Your task to perform on an android device: set an alarm Image 0: 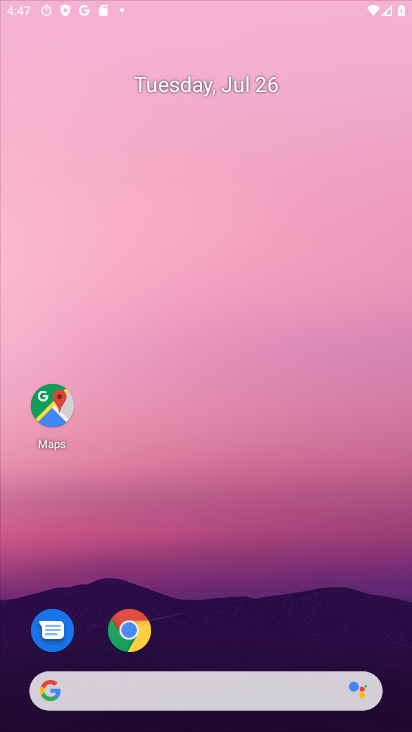
Step 0: drag from (345, 596) to (254, 64)
Your task to perform on an android device: set an alarm Image 1: 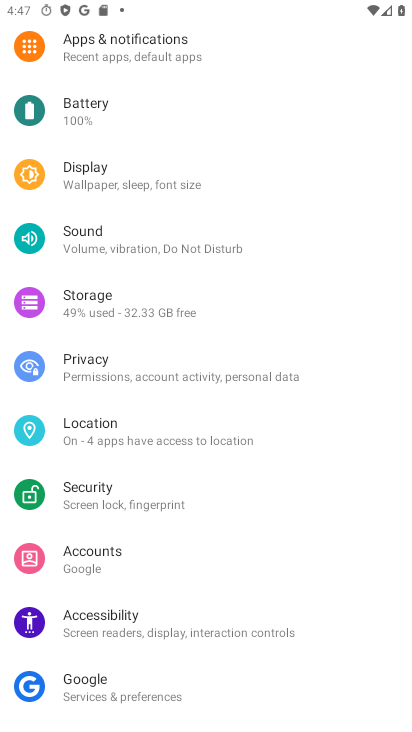
Step 1: press home button
Your task to perform on an android device: set an alarm Image 2: 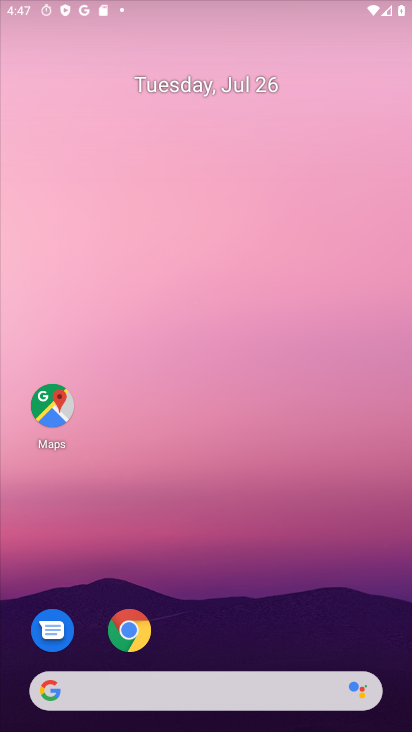
Step 2: drag from (213, 610) to (265, 115)
Your task to perform on an android device: set an alarm Image 3: 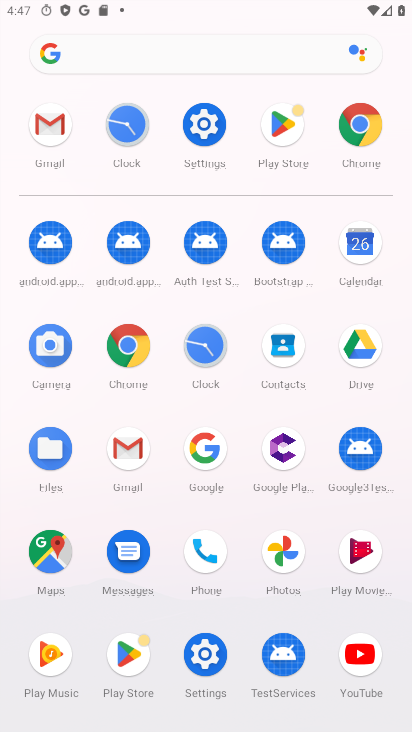
Step 3: click (210, 351)
Your task to perform on an android device: set an alarm Image 4: 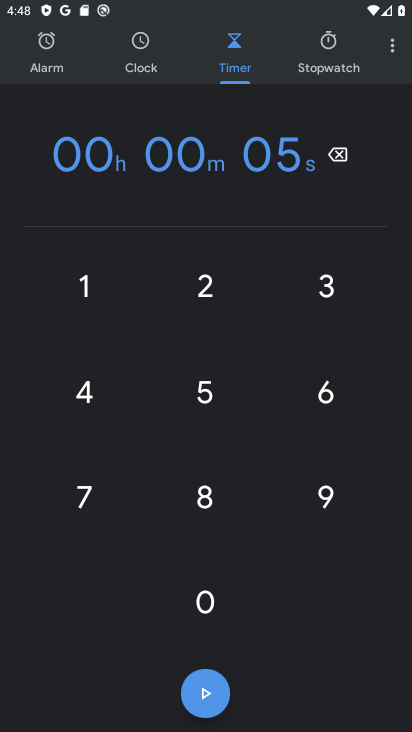
Step 4: task complete